Your task to perform on an android device: turn off javascript in the chrome app Image 0: 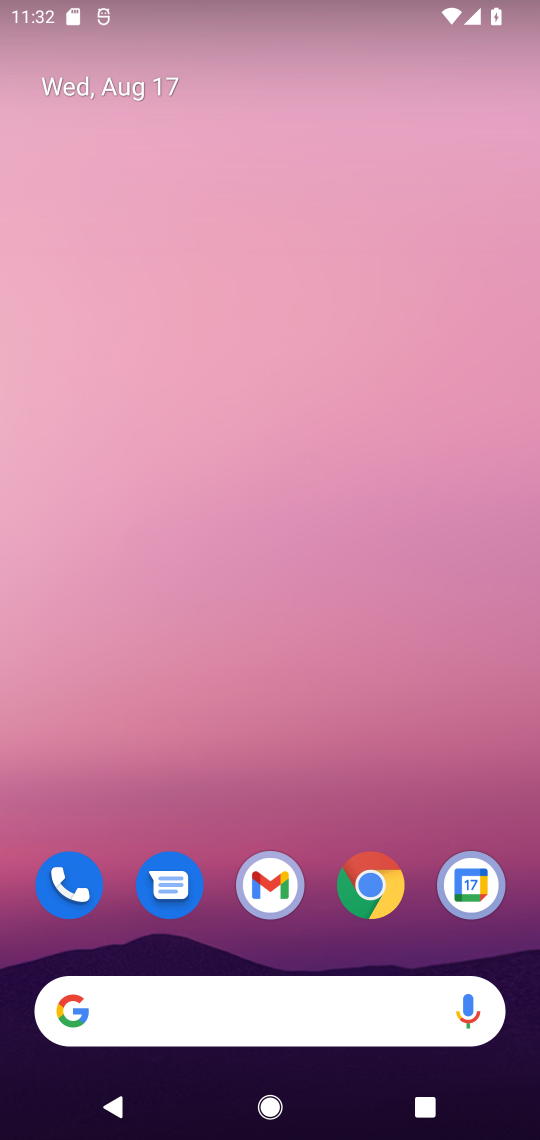
Step 0: click (385, 866)
Your task to perform on an android device: turn off javascript in the chrome app Image 1: 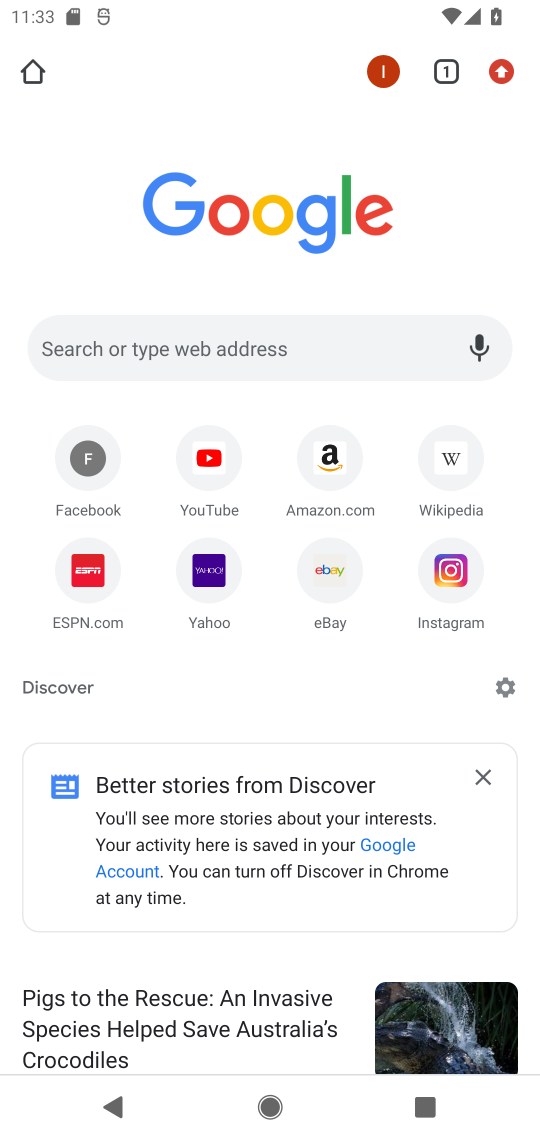
Step 1: click (502, 71)
Your task to perform on an android device: turn off javascript in the chrome app Image 2: 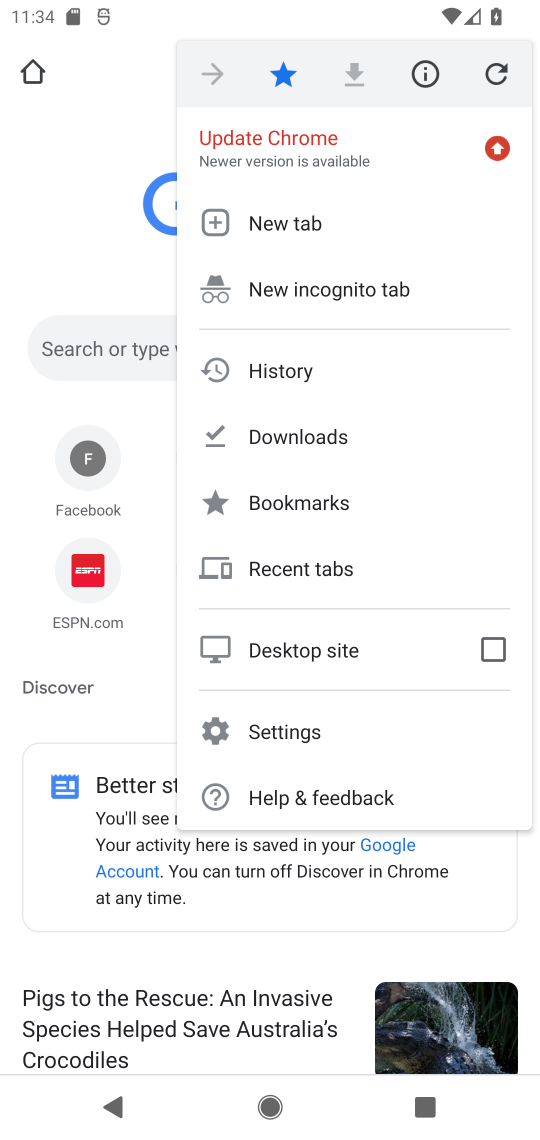
Step 2: click (328, 721)
Your task to perform on an android device: turn off javascript in the chrome app Image 3: 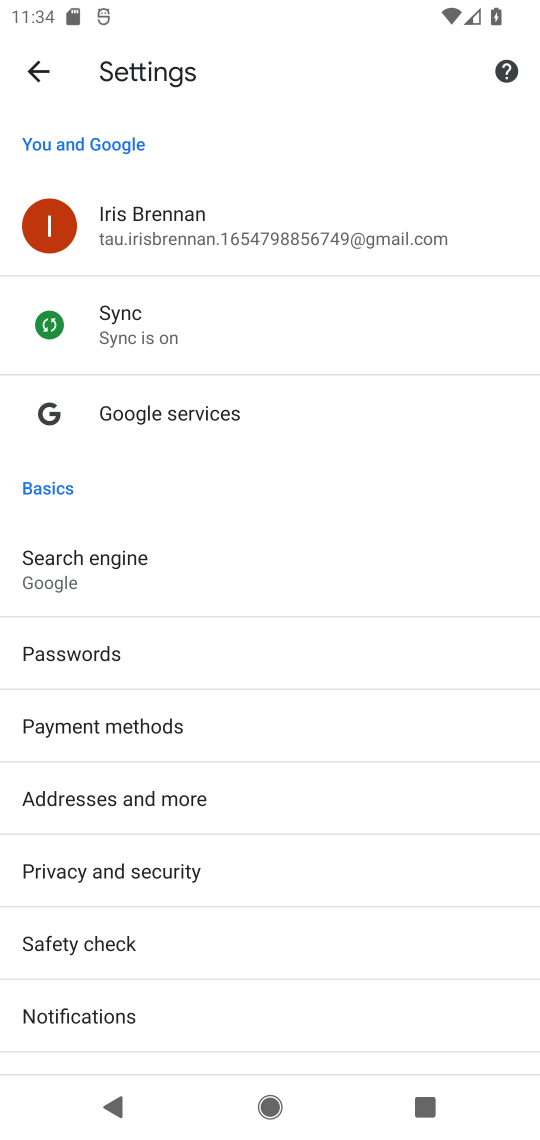
Step 3: drag from (207, 915) to (208, 52)
Your task to perform on an android device: turn off javascript in the chrome app Image 4: 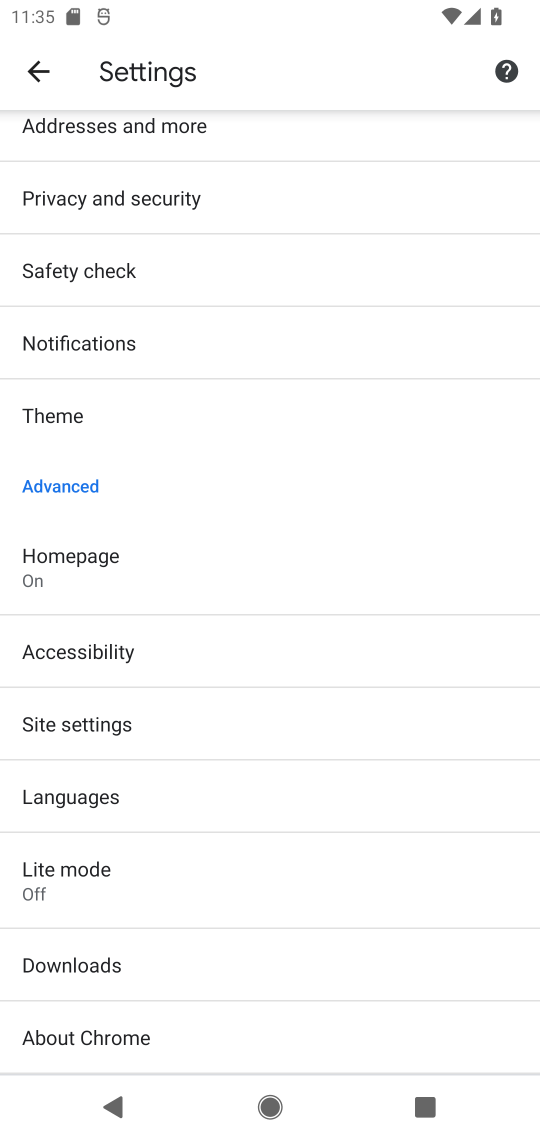
Step 4: click (195, 731)
Your task to perform on an android device: turn off javascript in the chrome app Image 5: 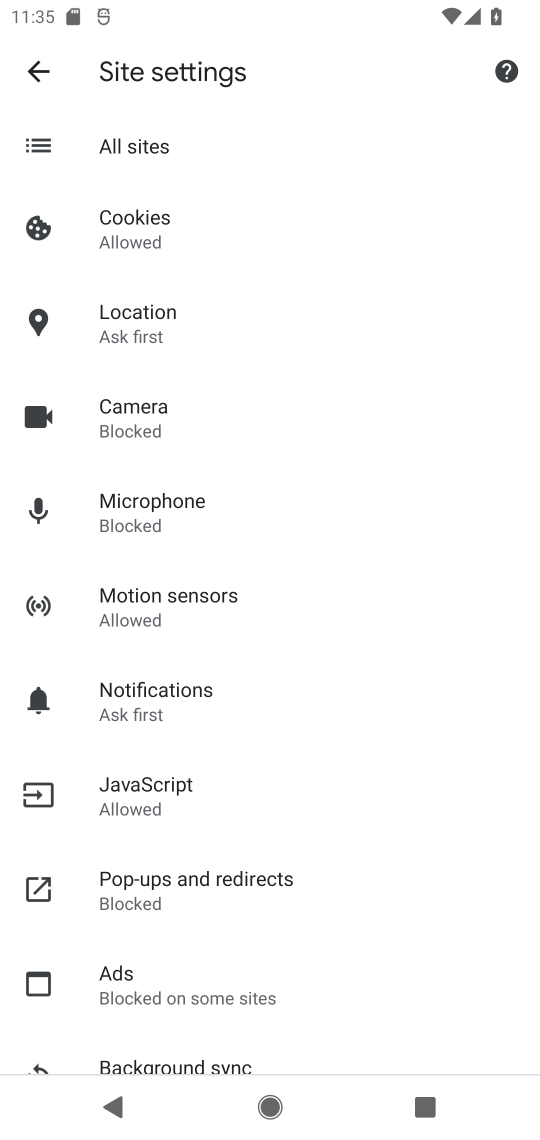
Step 5: click (224, 801)
Your task to perform on an android device: turn off javascript in the chrome app Image 6: 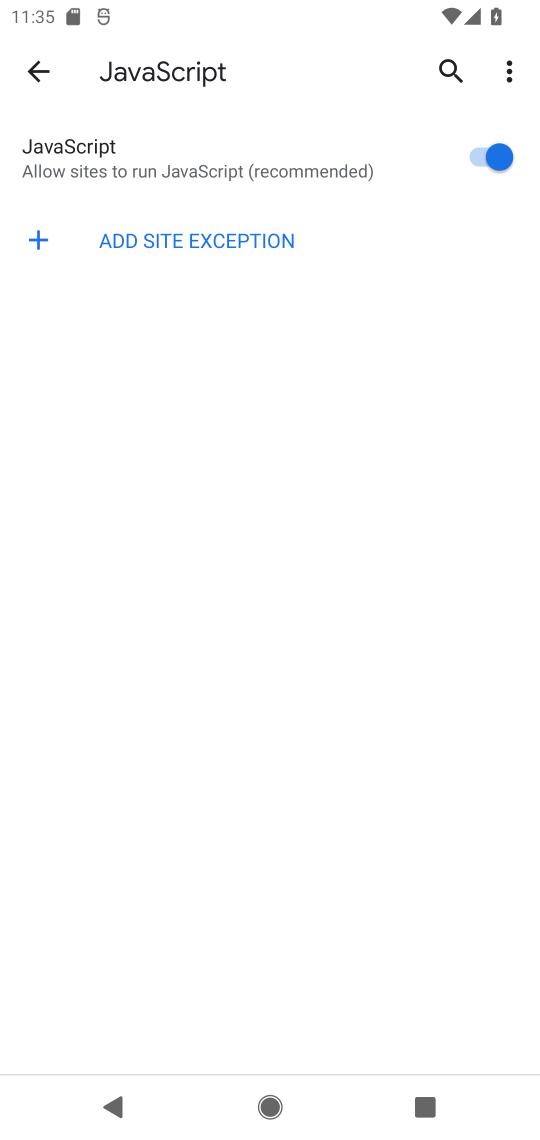
Step 6: click (472, 153)
Your task to perform on an android device: turn off javascript in the chrome app Image 7: 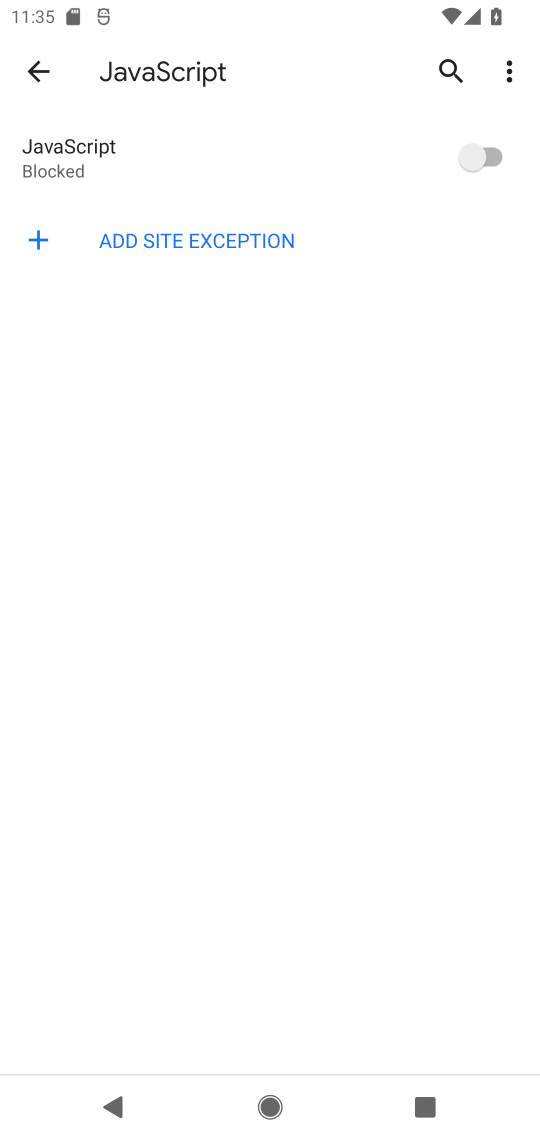
Step 7: task complete